Your task to perform on an android device: When is my next meeting? Image 0: 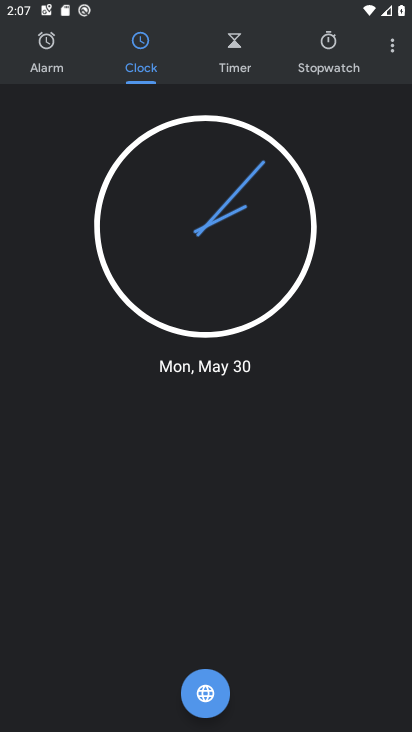
Step 0: press home button
Your task to perform on an android device: When is my next meeting? Image 1: 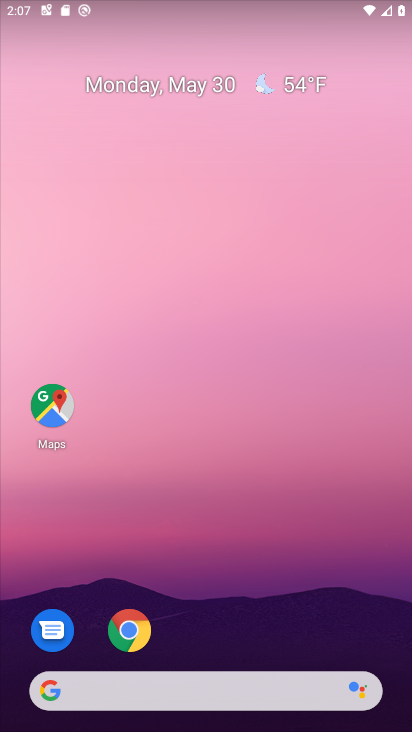
Step 1: drag from (156, 693) to (340, 97)
Your task to perform on an android device: When is my next meeting? Image 2: 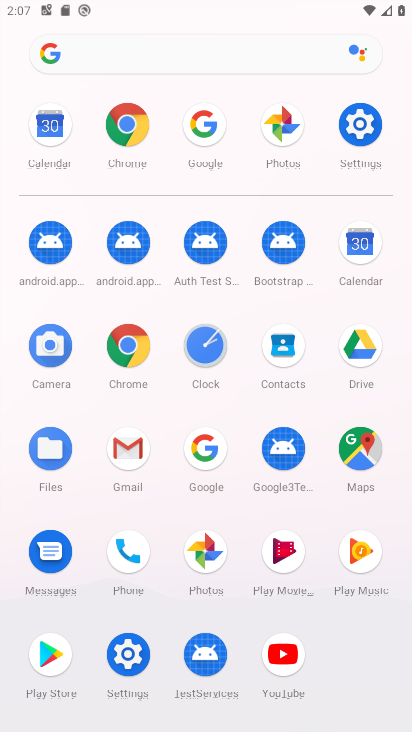
Step 2: click (357, 253)
Your task to perform on an android device: When is my next meeting? Image 3: 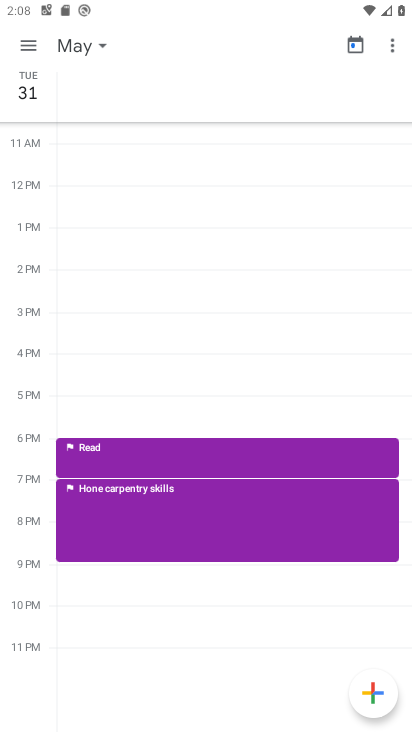
Step 3: click (29, 41)
Your task to perform on an android device: When is my next meeting? Image 4: 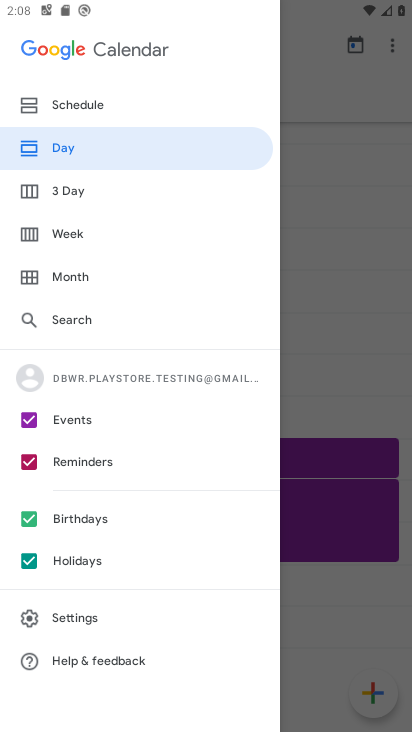
Step 4: click (91, 107)
Your task to perform on an android device: When is my next meeting? Image 5: 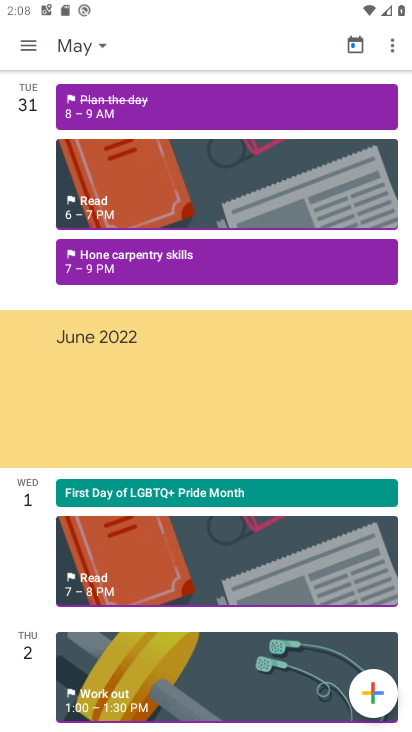
Step 5: task complete